Your task to perform on an android device: Open Android settings Image 0: 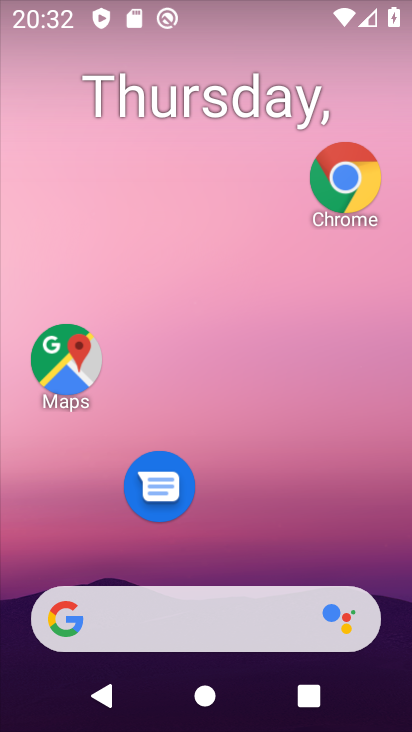
Step 0: drag from (258, 556) to (271, 45)
Your task to perform on an android device: Open Android settings Image 1: 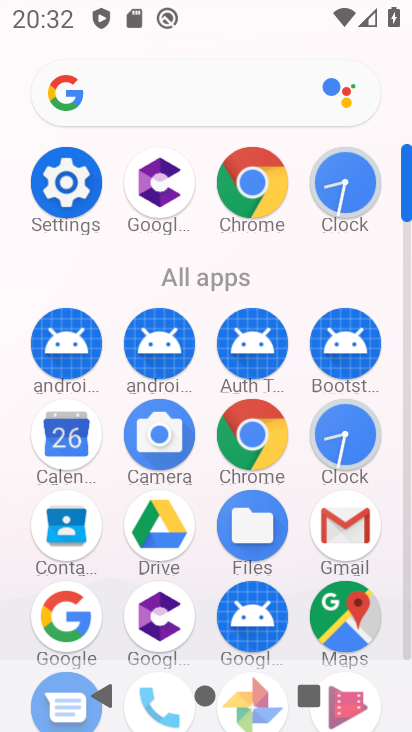
Step 1: click (65, 201)
Your task to perform on an android device: Open Android settings Image 2: 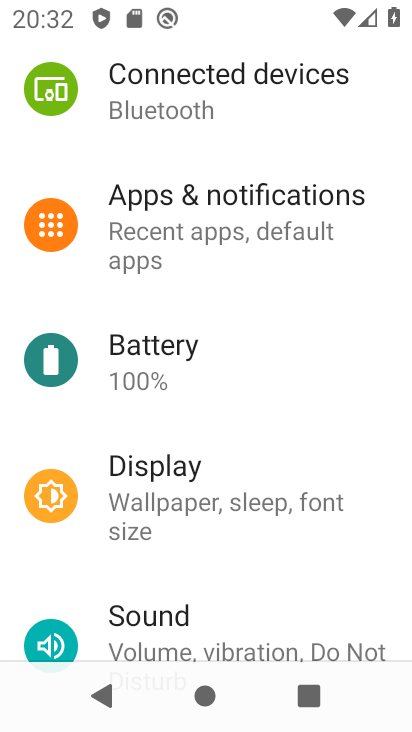
Step 2: task complete